Your task to perform on an android device: turn off data saver in the chrome app Image 0: 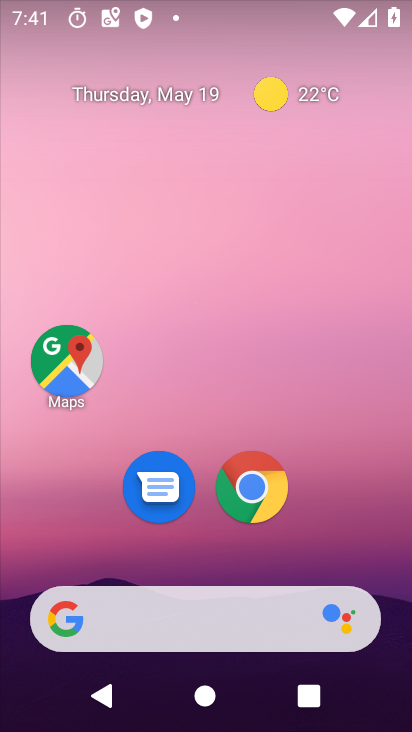
Step 0: press home button
Your task to perform on an android device: turn off data saver in the chrome app Image 1: 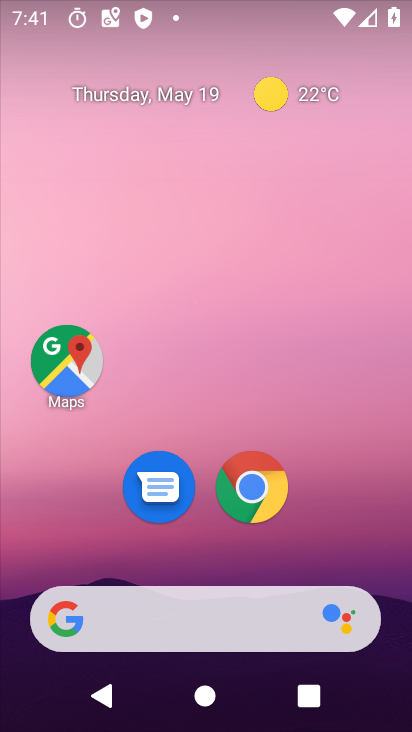
Step 1: drag from (165, 645) to (321, 197)
Your task to perform on an android device: turn off data saver in the chrome app Image 2: 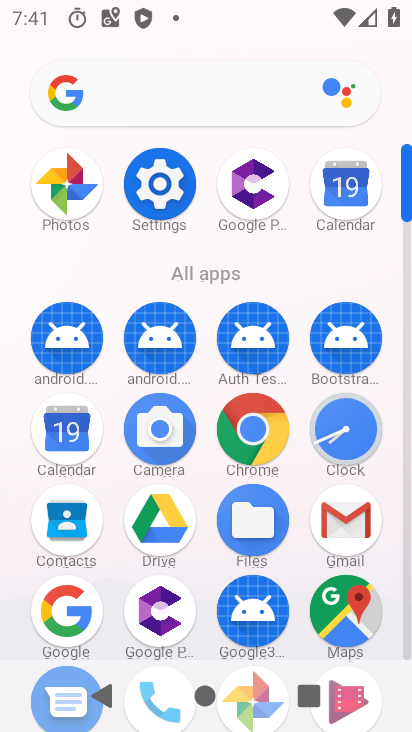
Step 2: click (252, 442)
Your task to perform on an android device: turn off data saver in the chrome app Image 3: 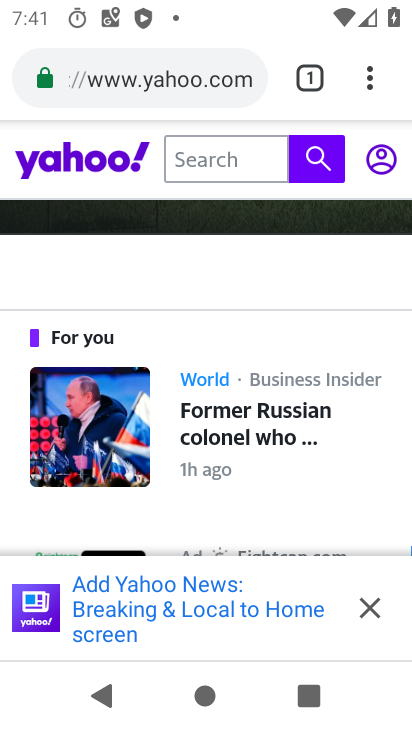
Step 3: drag from (371, 85) to (230, 523)
Your task to perform on an android device: turn off data saver in the chrome app Image 4: 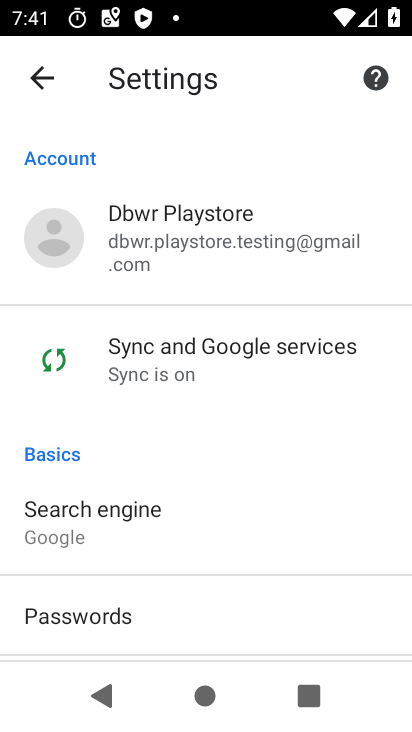
Step 4: drag from (284, 391) to (340, 191)
Your task to perform on an android device: turn off data saver in the chrome app Image 5: 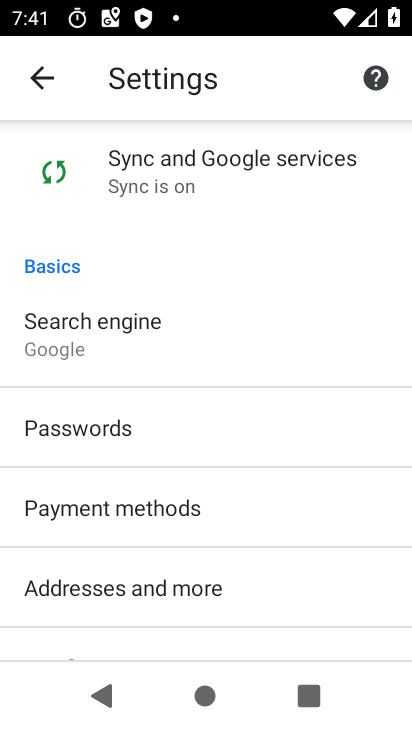
Step 5: drag from (315, 557) to (373, 190)
Your task to perform on an android device: turn off data saver in the chrome app Image 6: 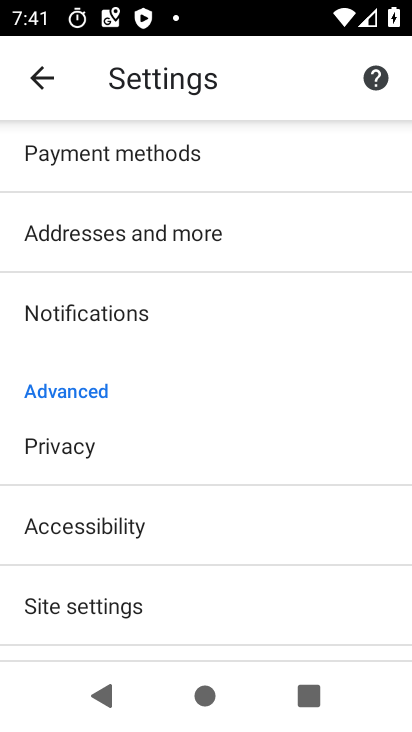
Step 6: drag from (260, 569) to (371, 170)
Your task to perform on an android device: turn off data saver in the chrome app Image 7: 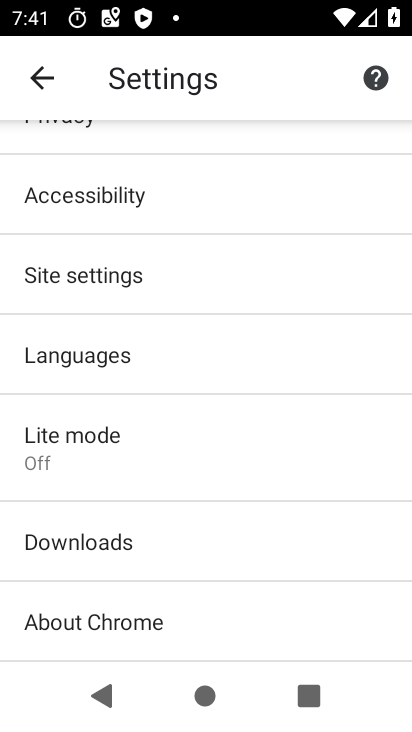
Step 7: click (122, 432)
Your task to perform on an android device: turn off data saver in the chrome app Image 8: 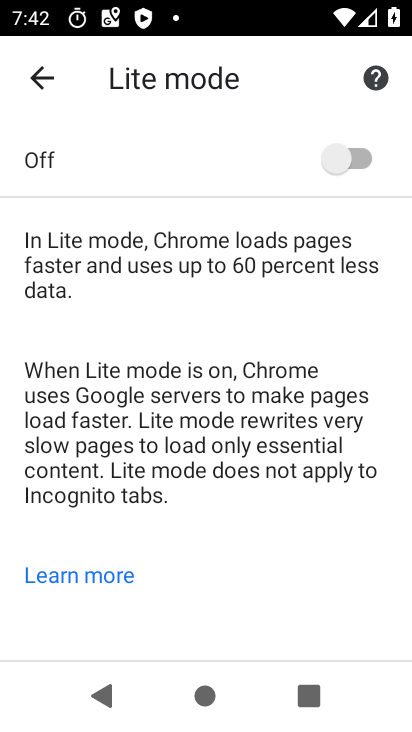
Step 8: task complete